Your task to perform on an android device: When is my next meeting? Image 0: 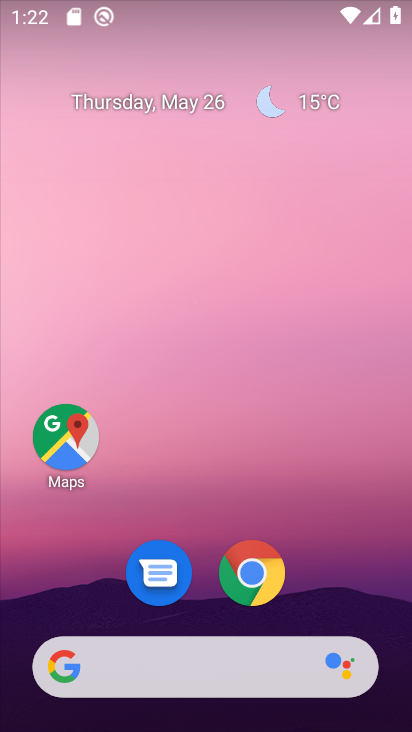
Step 0: drag from (353, 595) to (292, 82)
Your task to perform on an android device: When is my next meeting? Image 1: 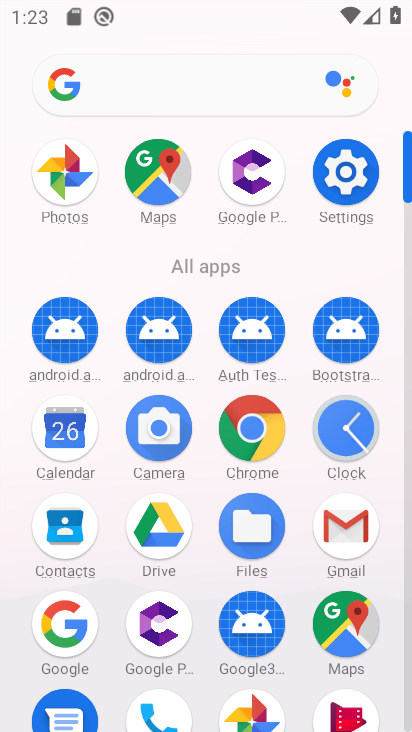
Step 1: drag from (200, 571) to (205, 252)
Your task to perform on an android device: When is my next meeting? Image 2: 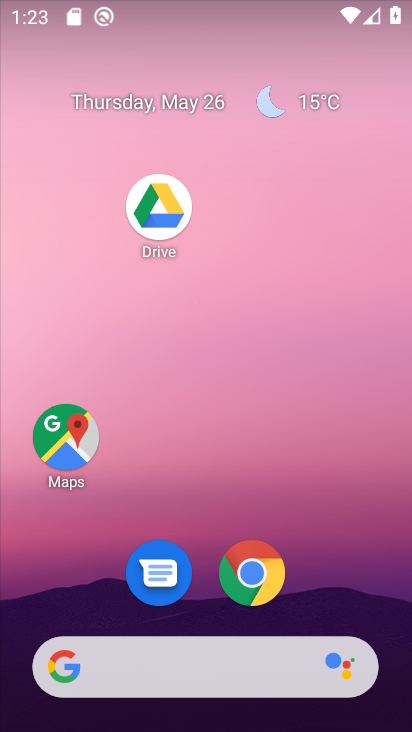
Step 2: drag from (296, 626) to (302, 130)
Your task to perform on an android device: When is my next meeting? Image 3: 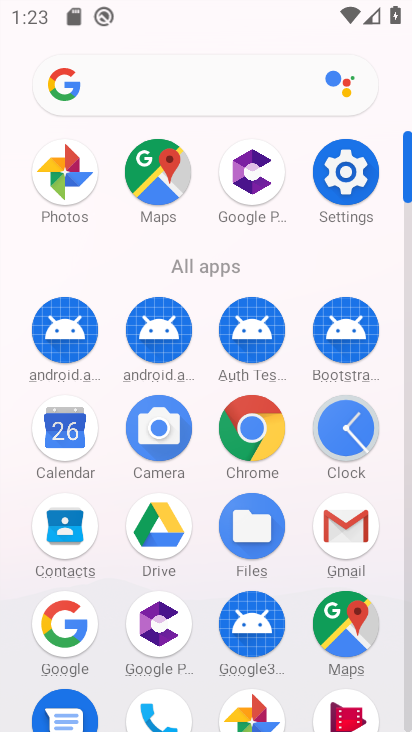
Step 3: click (77, 422)
Your task to perform on an android device: When is my next meeting? Image 4: 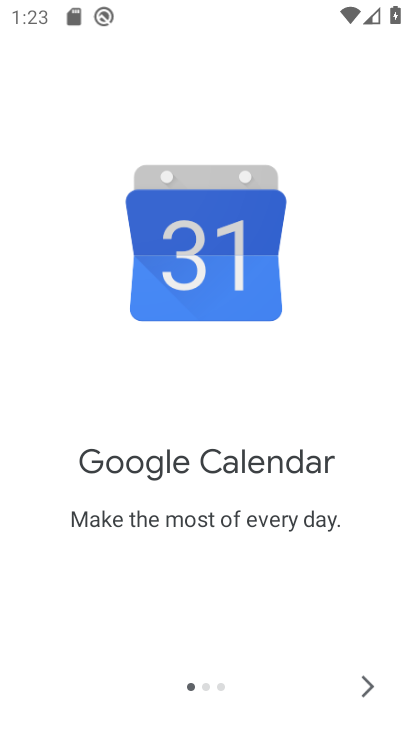
Step 4: click (375, 688)
Your task to perform on an android device: When is my next meeting? Image 5: 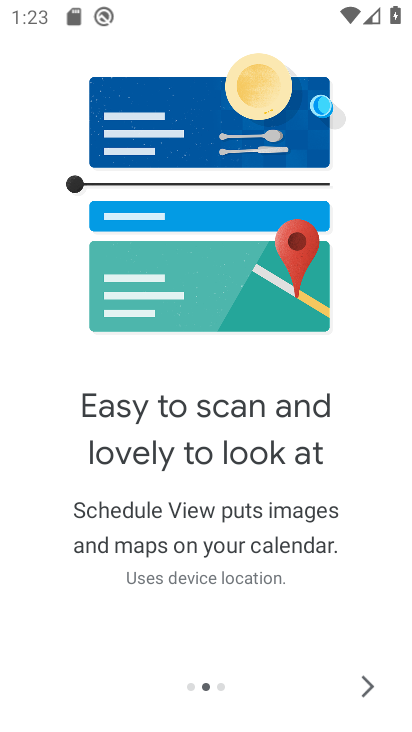
Step 5: click (375, 688)
Your task to perform on an android device: When is my next meeting? Image 6: 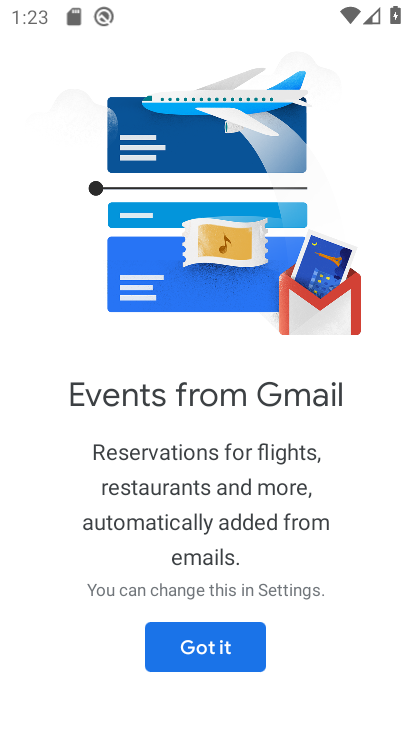
Step 6: click (243, 644)
Your task to perform on an android device: When is my next meeting? Image 7: 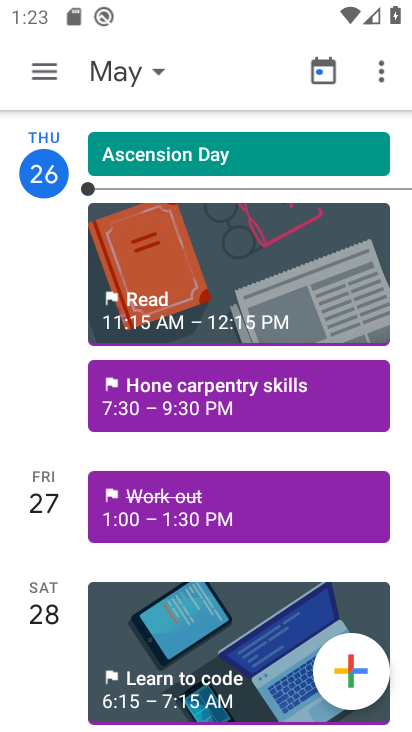
Step 7: drag from (224, 591) to (193, 27)
Your task to perform on an android device: When is my next meeting? Image 8: 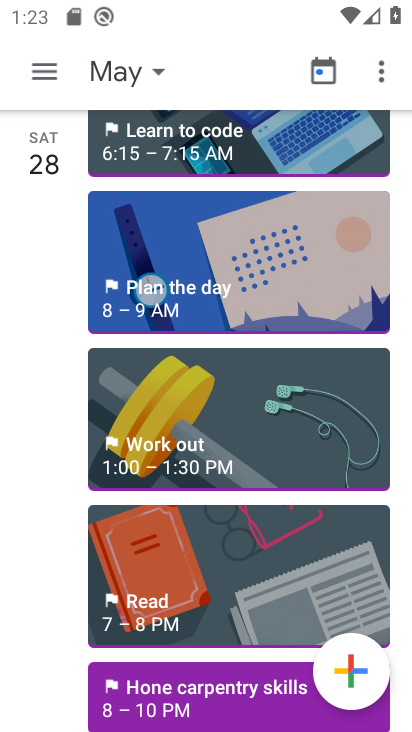
Step 8: drag from (273, 468) to (230, 88)
Your task to perform on an android device: When is my next meeting? Image 9: 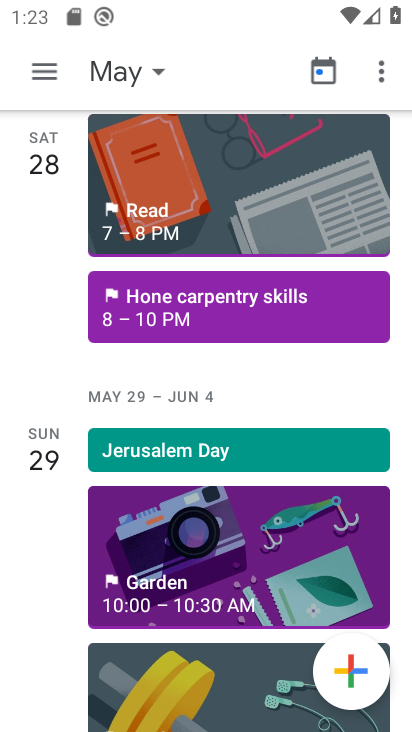
Step 9: drag from (265, 582) to (214, 150)
Your task to perform on an android device: When is my next meeting? Image 10: 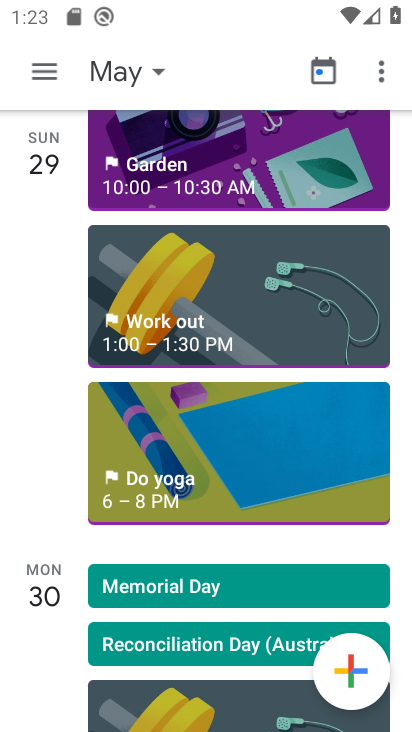
Step 10: drag from (225, 601) to (205, 271)
Your task to perform on an android device: When is my next meeting? Image 11: 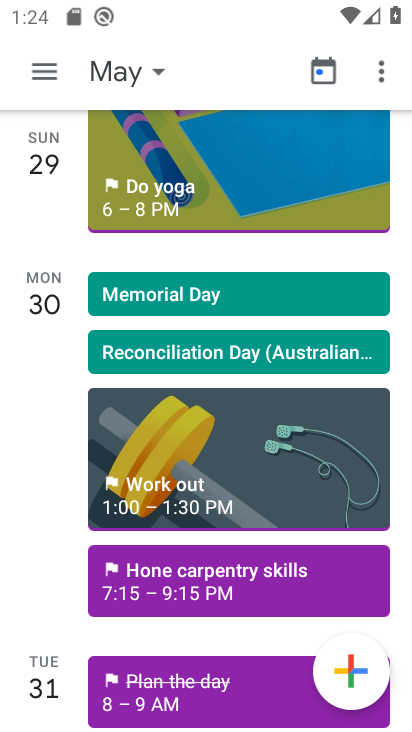
Step 11: drag from (214, 690) to (152, 24)
Your task to perform on an android device: When is my next meeting? Image 12: 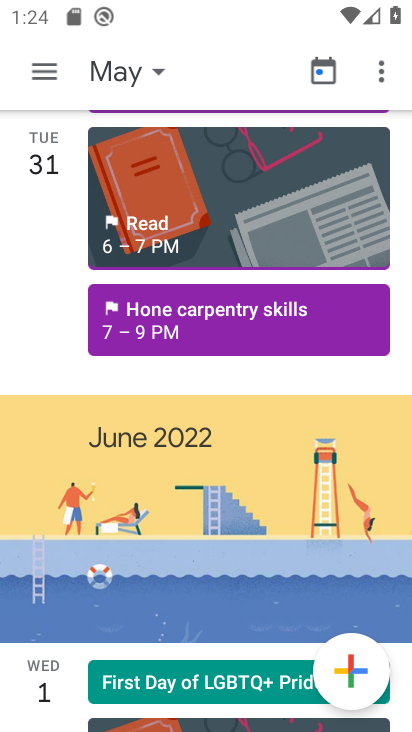
Step 12: drag from (174, 669) to (127, 106)
Your task to perform on an android device: When is my next meeting? Image 13: 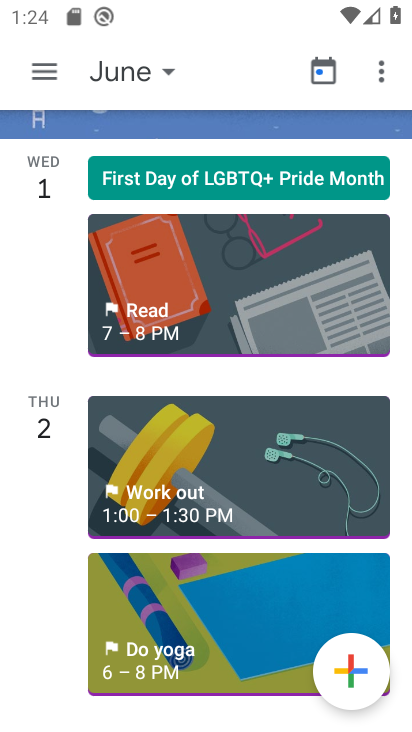
Step 13: drag from (158, 697) to (122, 98)
Your task to perform on an android device: When is my next meeting? Image 14: 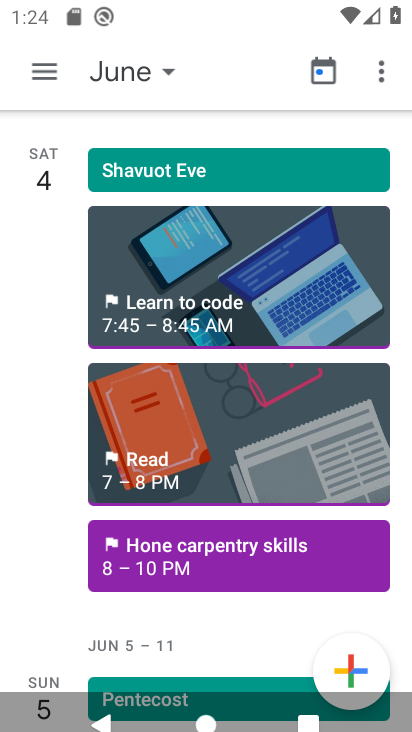
Step 14: drag from (216, 678) to (179, 108)
Your task to perform on an android device: When is my next meeting? Image 15: 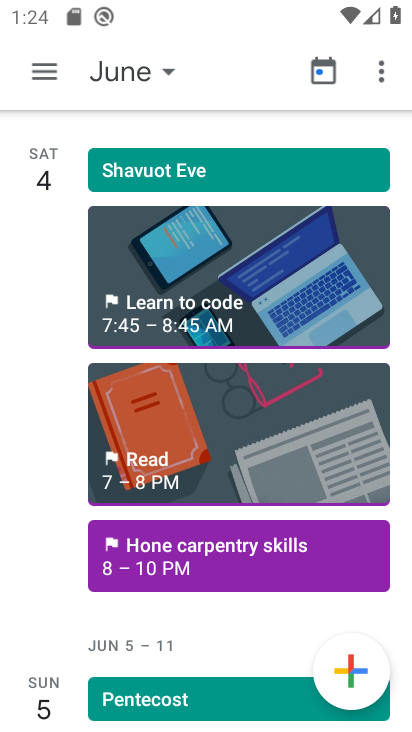
Step 15: drag from (197, 617) to (200, 134)
Your task to perform on an android device: When is my next meeting? Image 16: 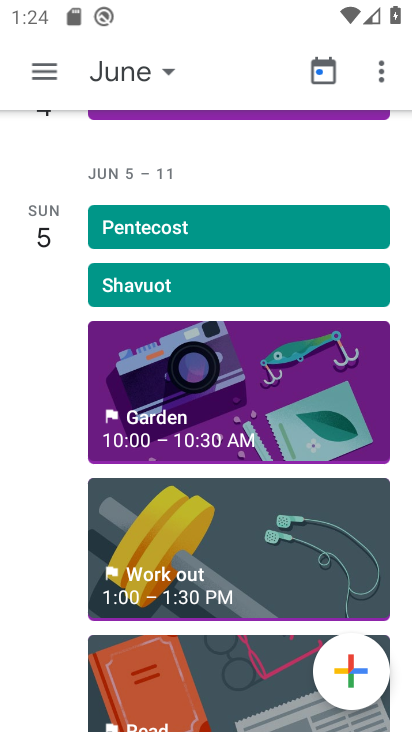
Step 16: drag from (215, 718) to (195, 288)
Your task to perform on an android device: When is my next meeting? Image 17: 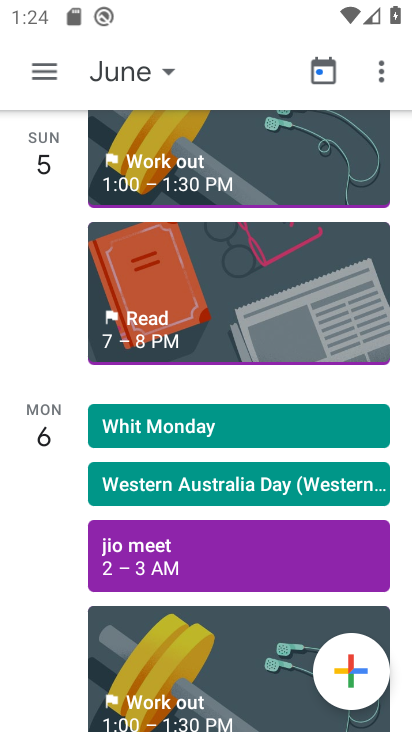
Step 17: click (194, 581)
Your task to perform on an android device: When is my next meeting? Image 18: 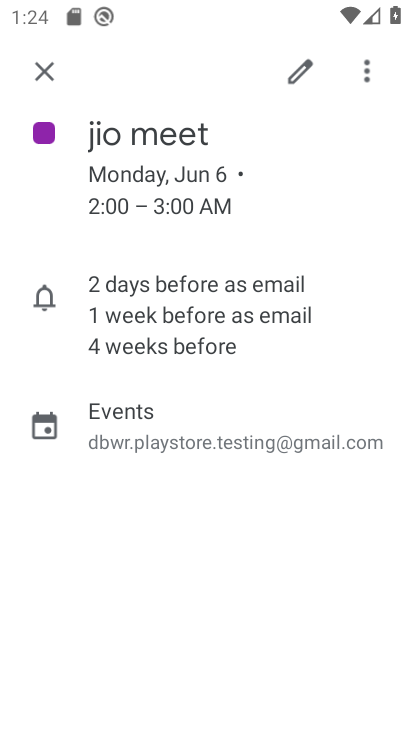
Step 18: task complete